Your task to perform on an android device: turn on sleep mode Image 0: 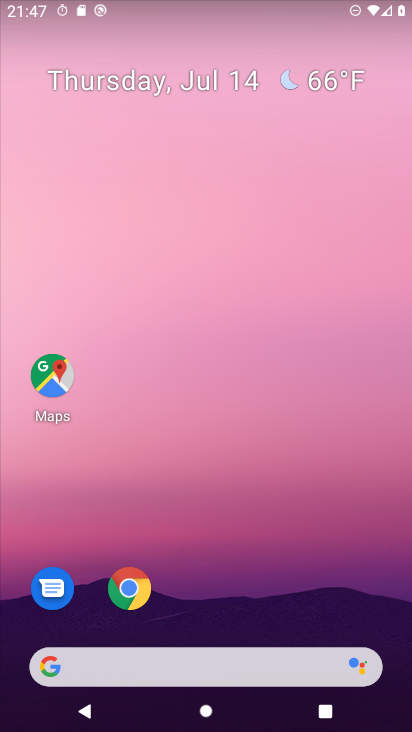
Step 0: drag from (314, 585) to (333, 137)
Your task to perform on an android device: turn on sleep mode Image 1: 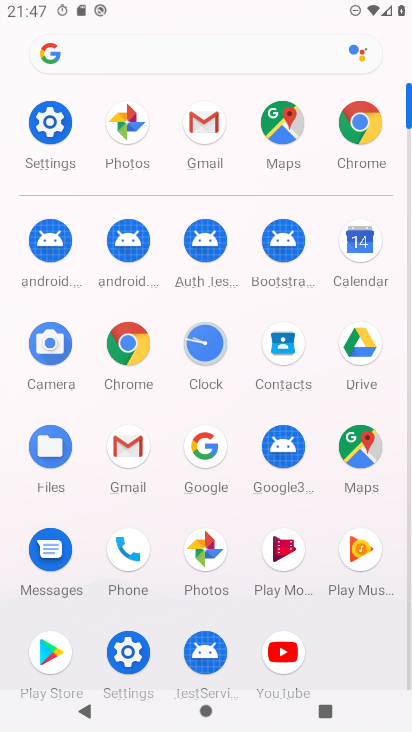
Step 1: click (53, 132)
Your task to perform on an android device: turn on sleep mode Image 2: 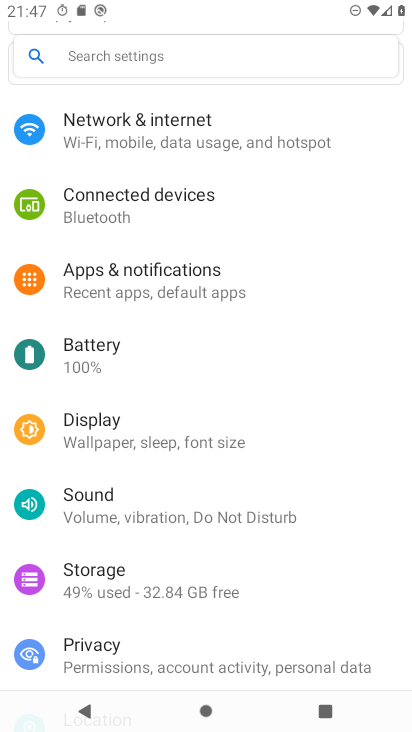
Step 2: drag from (313, 385) to (323, 292)
Your task to perform on an android device: turn on sleep mode Image 3: 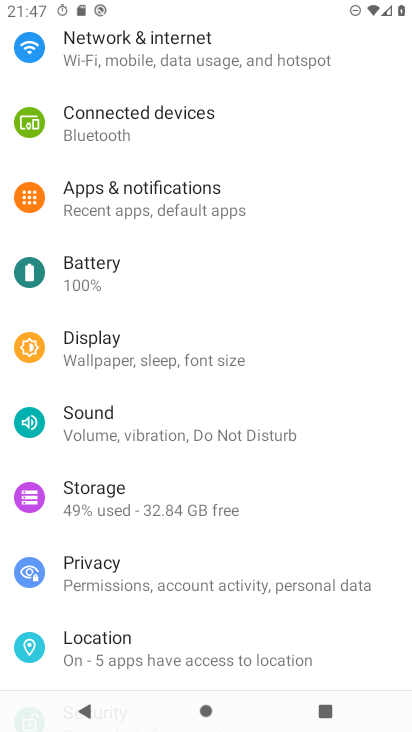
Step 3: drag from (373, 519) to (364, 431)
Your task to perform on an android device: turn on sleep mode Image 4: 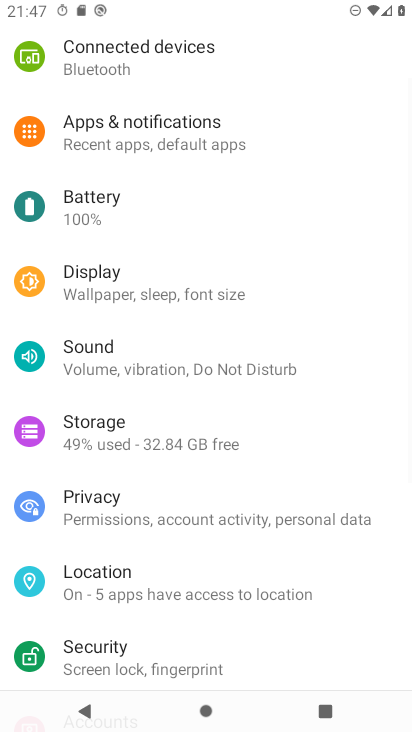
Step 4: drag from (357, 566) to (355, 481)
Your task to perform on an android device: turn on sleep mode Image 5: 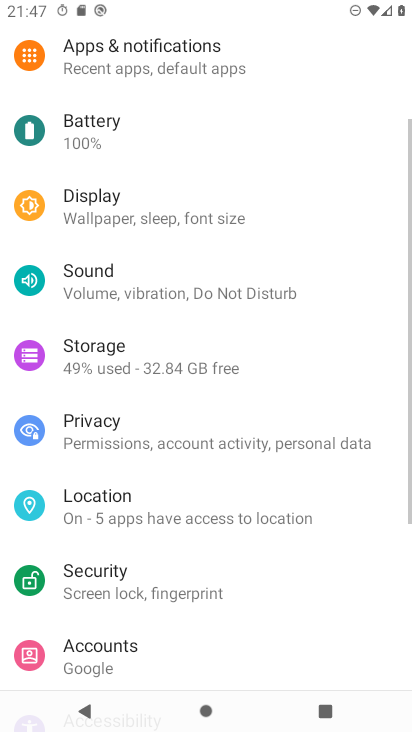
Step 5: drag from (357, 551) to (355, 453)
Your task to perform on an android device: turn on sleep mode Image 6: 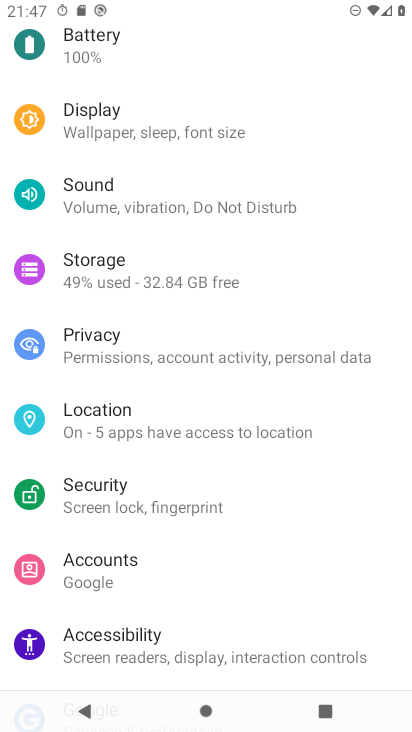
Step 6: drag from (355, 497) to (355, 407)
Your task to perform on an android device: turn on sleep mode Image 7: 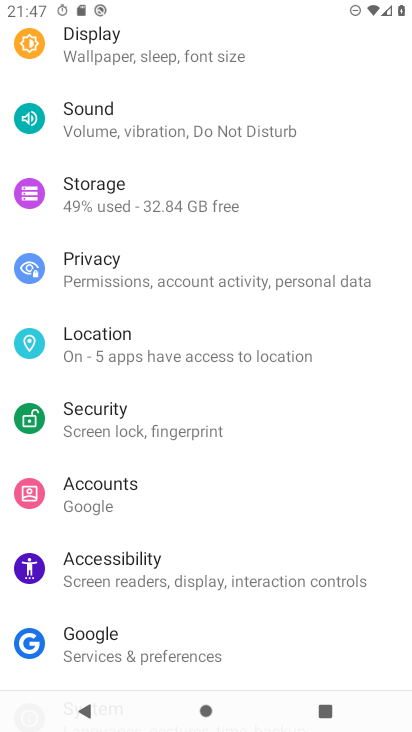
Step 7: drag from (353, 367) to (352, 446)
Your task to perform on an android device: turn on sleep mode Image 8: 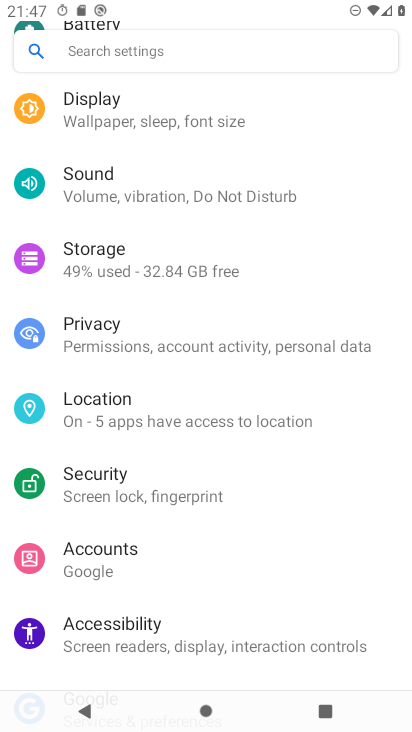
Step 8: drag from (354, 386) to (353, 467)
Your task to perform on an android device: turn on sleep mode Image 9: 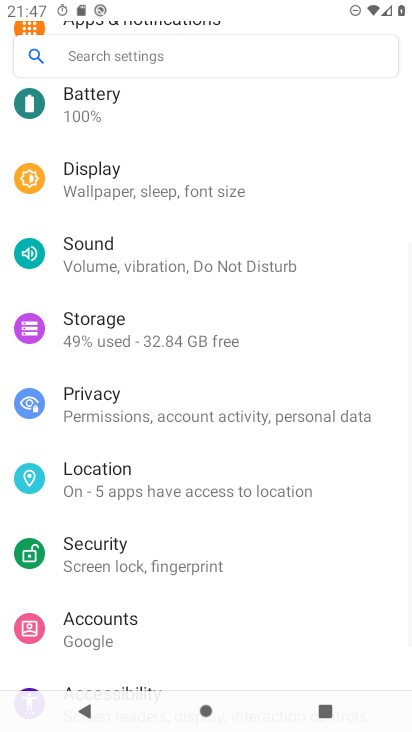
Step 9: drag from (350, 336) to (355, 425)
Your task to perform on an android device: turn on sleep mode Image 10: 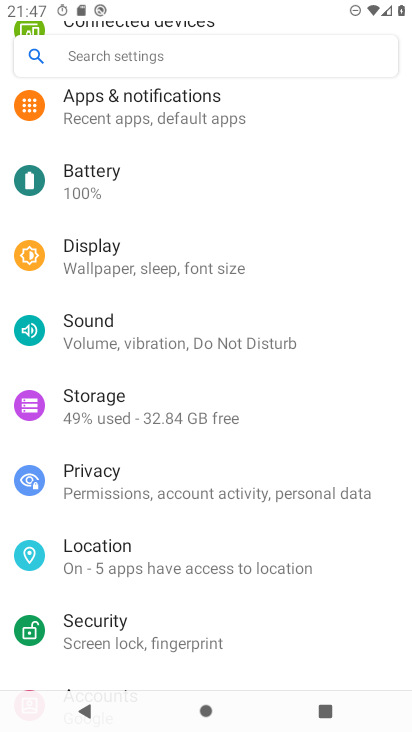
Step 10: drag from (337, 306) to (345, 383)
Your task to perform on an android device: turn on sleep mode Image 11: 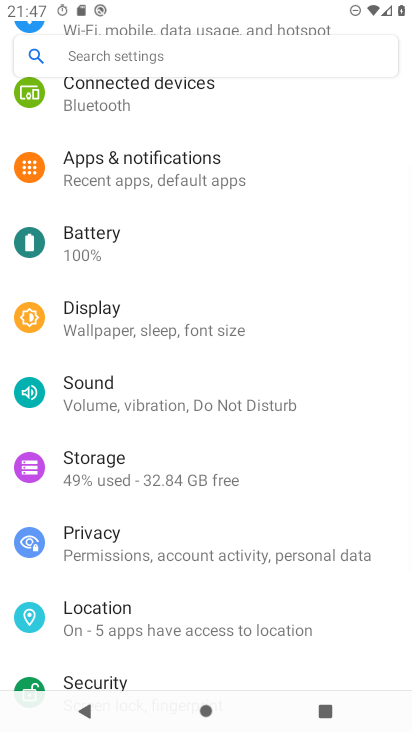
Step 11: drag from (342, 298) to (346, 393)
Your task to perform on an android device: turn on sleep mode Image 12: 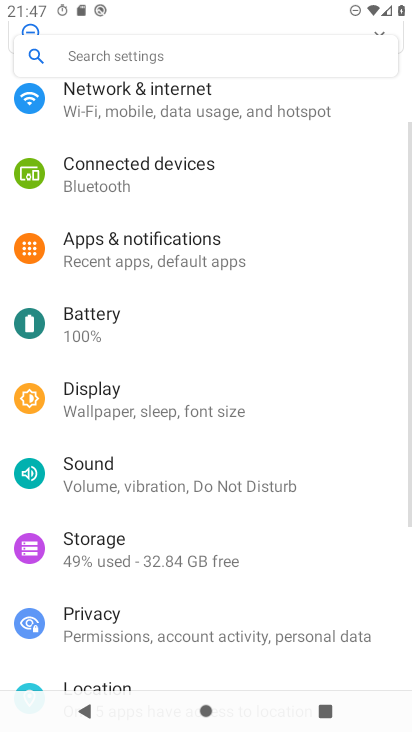
Step 12: click (251, 387)
Your task to perform on an android device: turn on sleep mode Image 13: 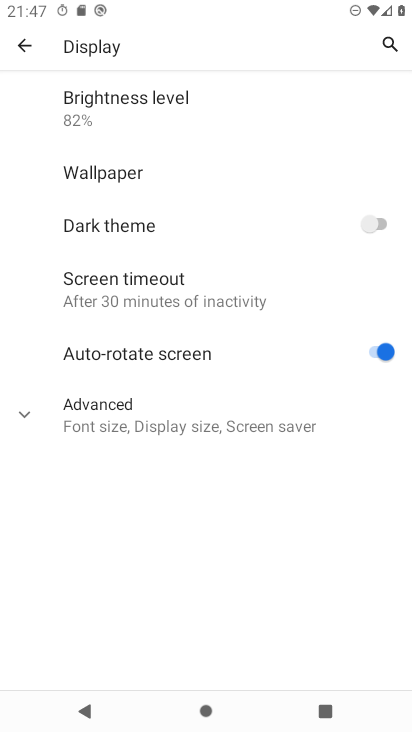
Step 13: click (268, 418)
Your task to perform on an android device: turn on sleep mode Image 14: 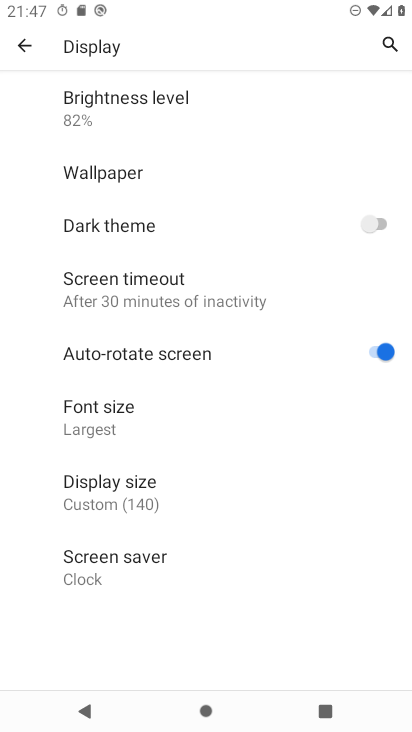
Step 14: task complete